Your task to perform on an android device: open app "Flipkart Online Shopping App" Image 0: 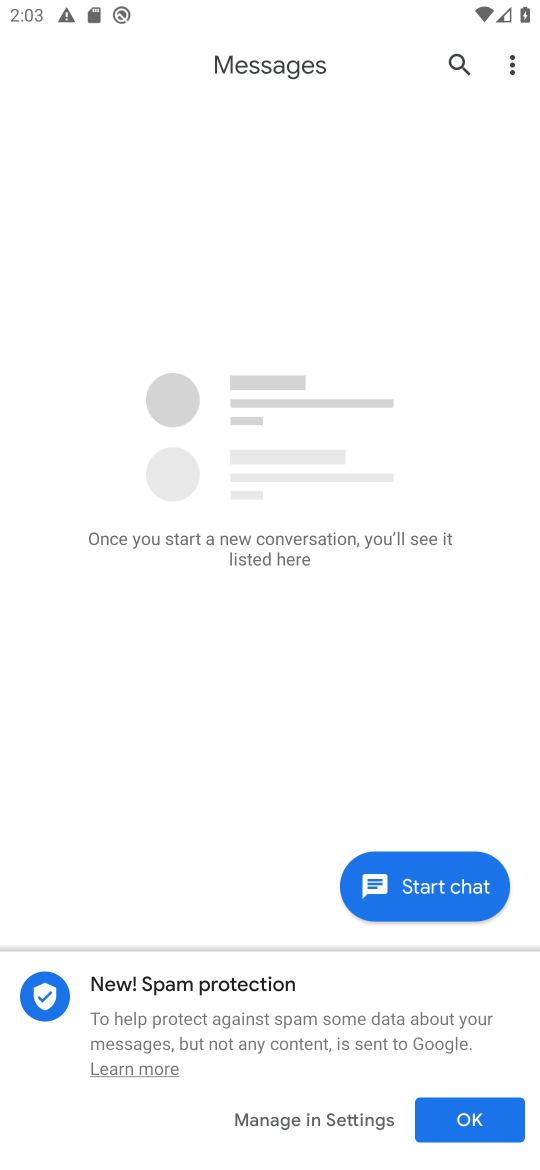
Step 0: press home button
Your task to perform on an android device: open app "Flipkart Online Shopping App" Image 1: 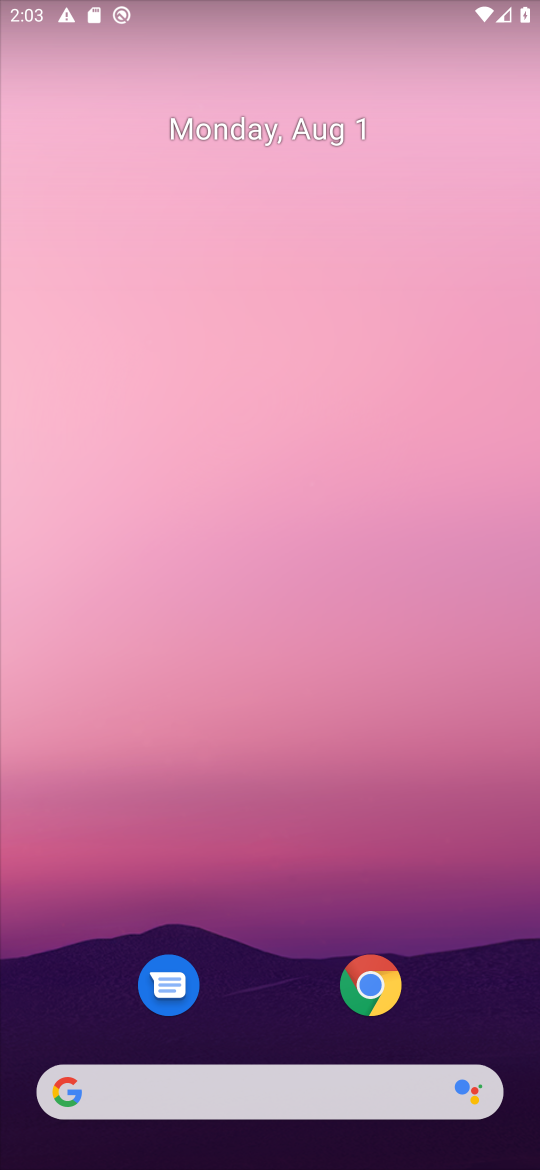
Step 1: drag from (269, 1153) to (347, 94)
Your task to perform on an android device: open app "Flipkart Online Shopping App" Image 2: 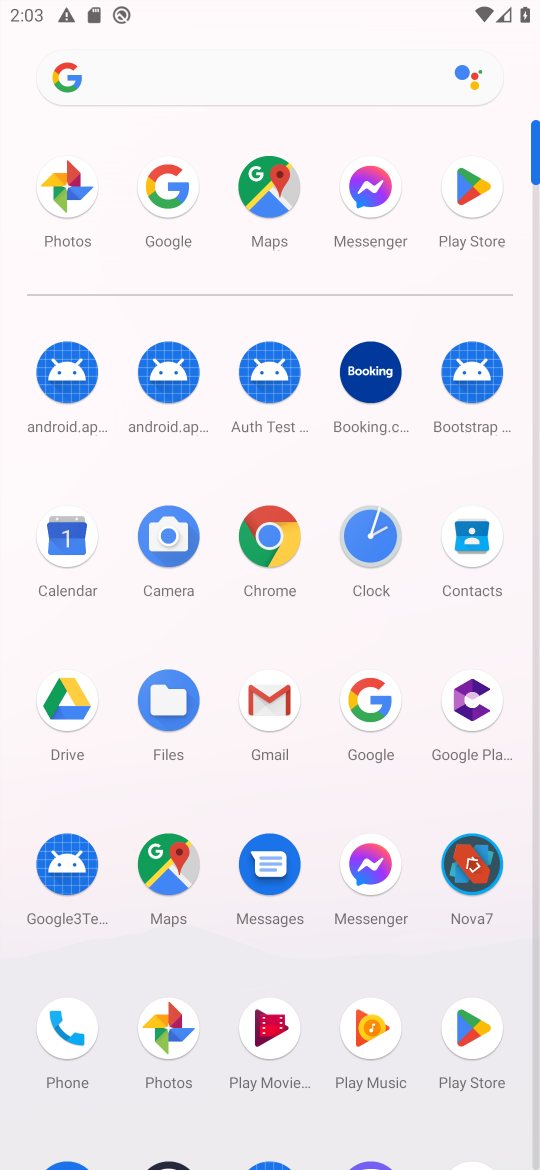
Step 2: click (467, 186)
Your task to perform on an android device: open app "Flipkart Online Shopping App" Image 3: 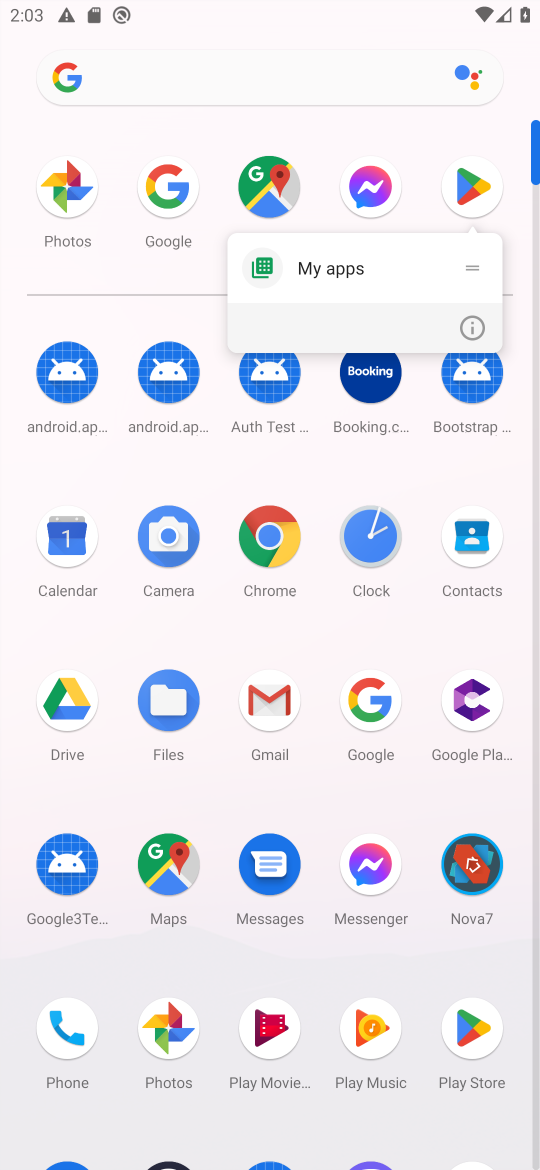
Step 3: click (461, 190)
Your task to perform on an android device: open app "Flipkart Online Shopping App" Image 4: 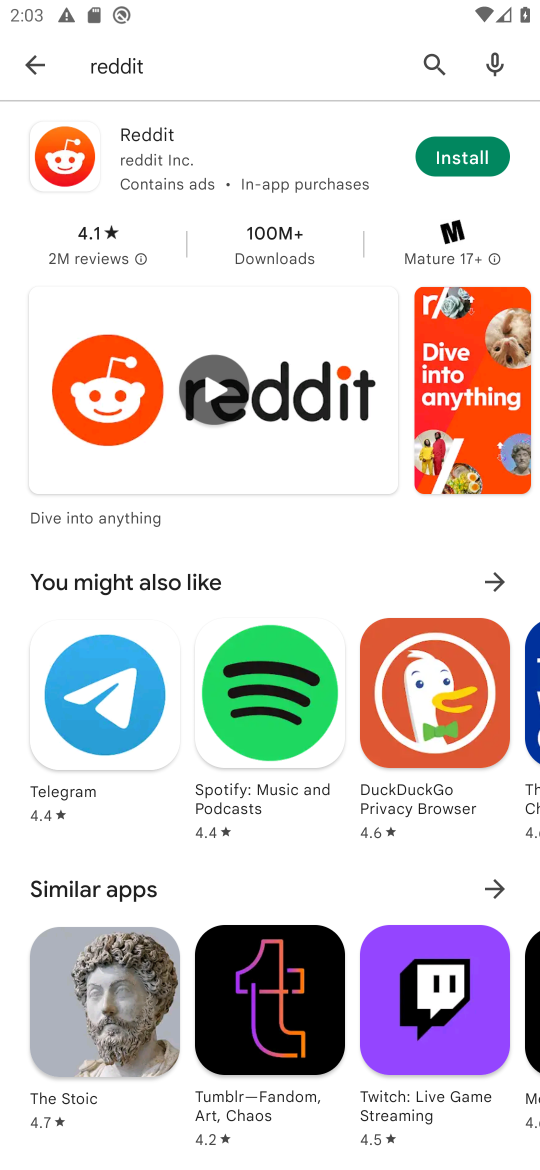
Step 4: click (435, 55)
Your task to perform on an android device: open app "Flipkart Online Shopping App" Image 5: 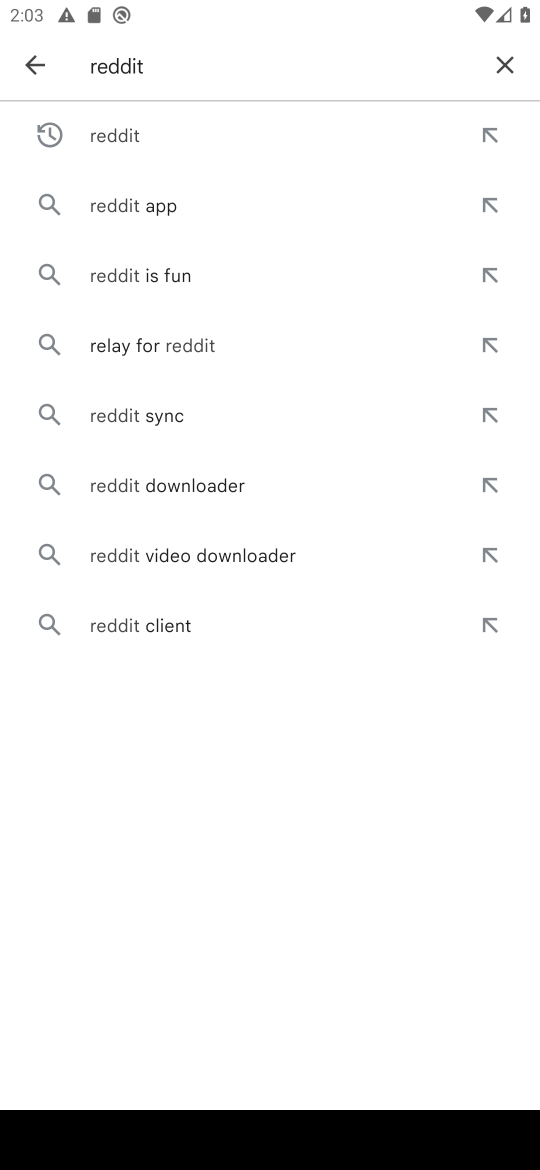
Step 5: click (504, 58)
Your task to perform on an android device: open app "Flipkart Online Shopping App" Image 6: 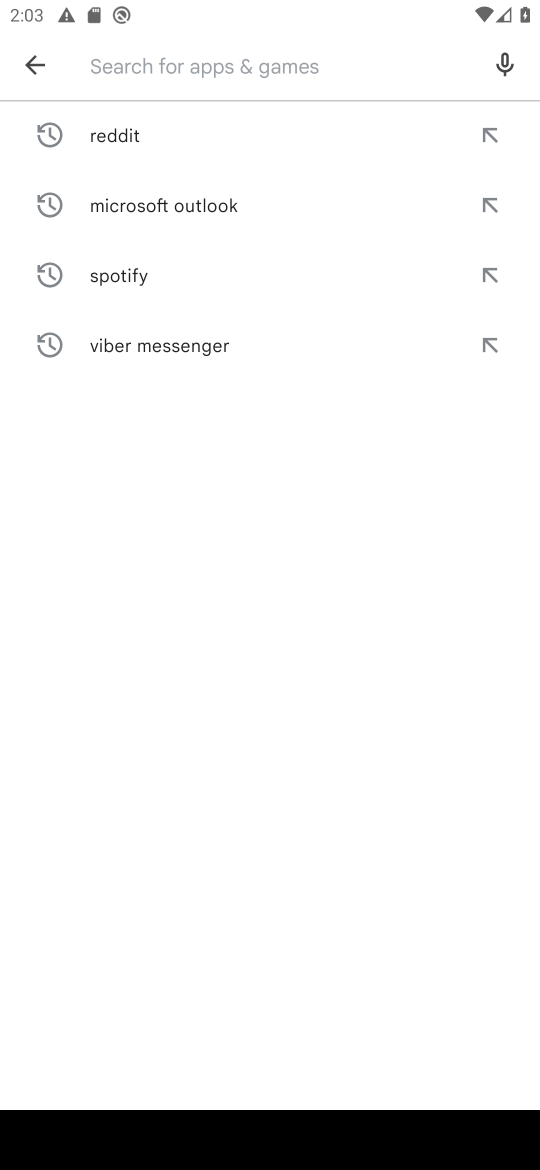
Step 6: type "Flipkart Online Shopping App"
Your task to perform on an android device: open app "Flipkart Online Shopping App" Image 7: 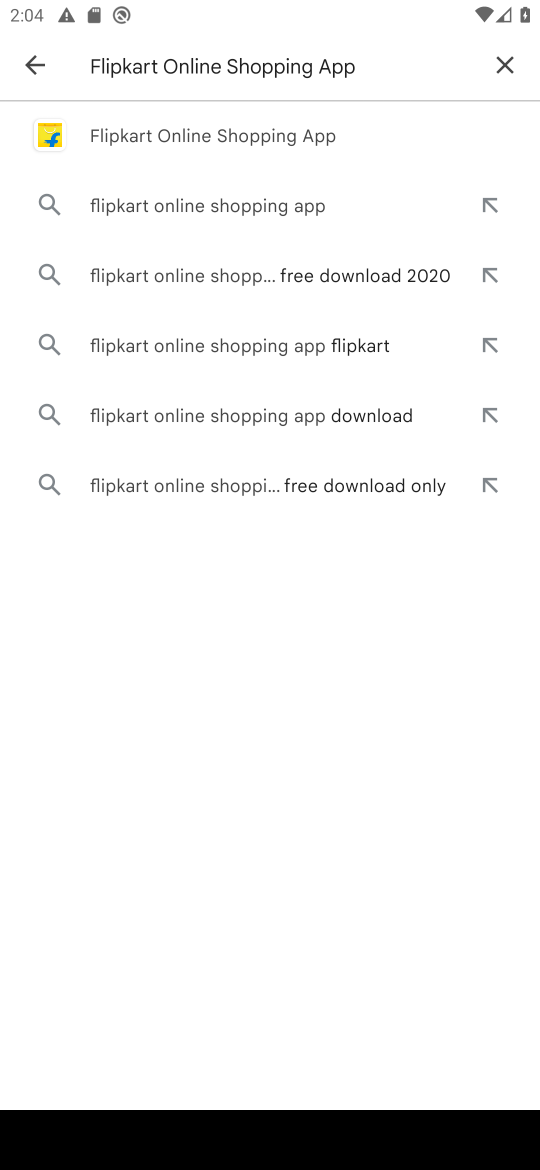
Step 7: click (148, 131)
Your task to perform on an android device: open app "Flipkart Online Shopping App" Image 8: 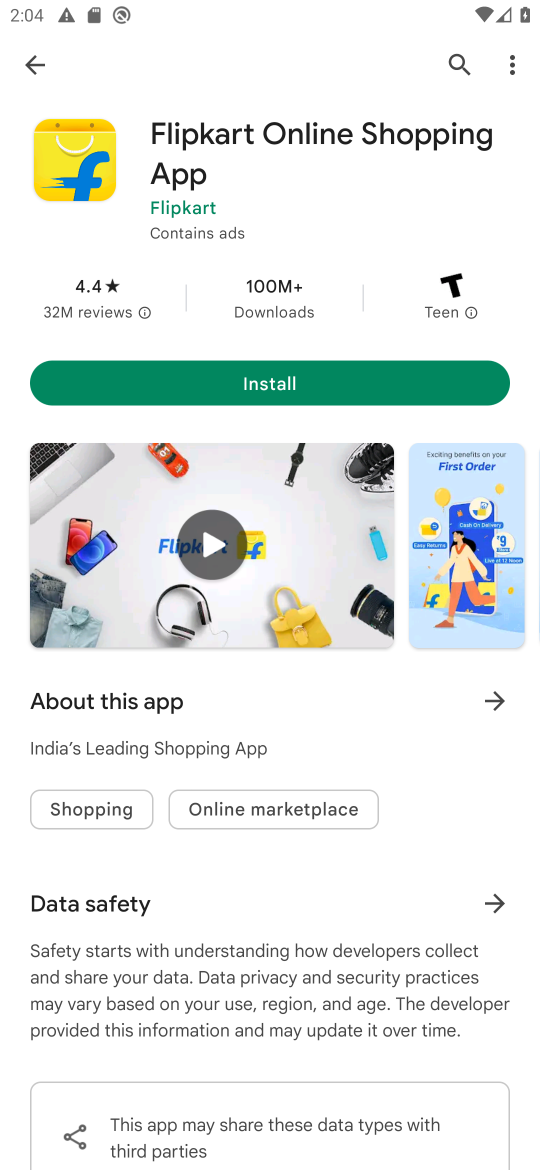
Step 8: task complete